Your task to perform on an android device: Open the phone app and click the voicemail tab. Image 0: 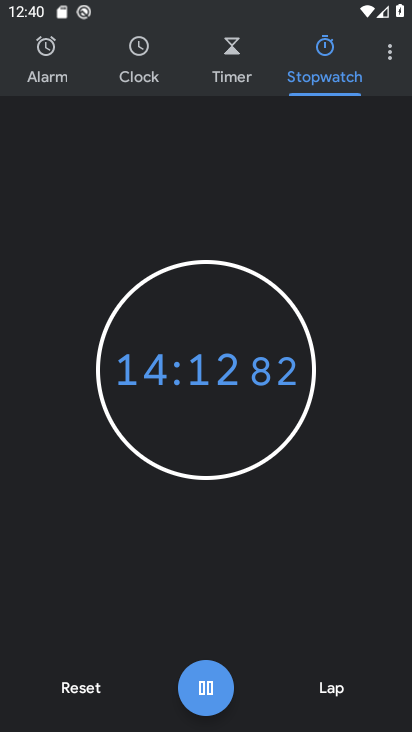
Step 0: press home button
Your task to perform on an android device: Open the phone app and click the voicemail tab. Image 1: 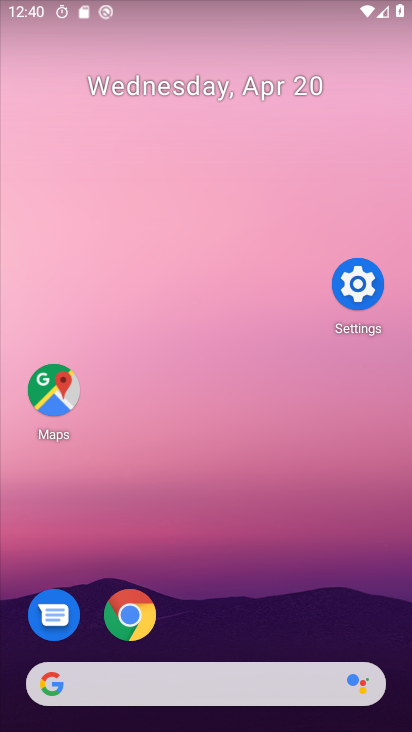
Step 1: drag from (212, 631) to (217, 159)
Your task to perform on an android device: Open the phone app and click the voicemail tab. Image 2: 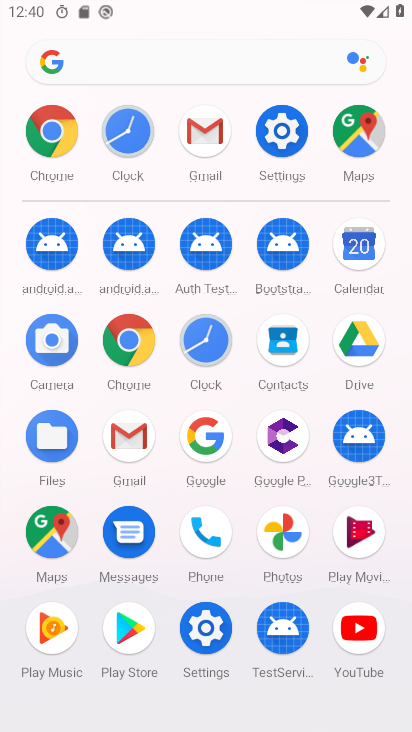
Step 2: click (208, 517)
Your task to perform on an android device: Open the phone app and click the voicemail tab. Image 3: 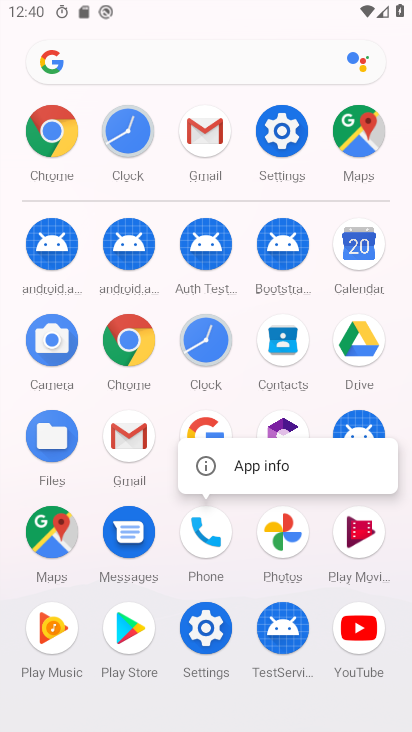
Step 3: click (247, 464)
Your task to perform on an android device: Open the phone app and click the voicemail tab. Image 4: 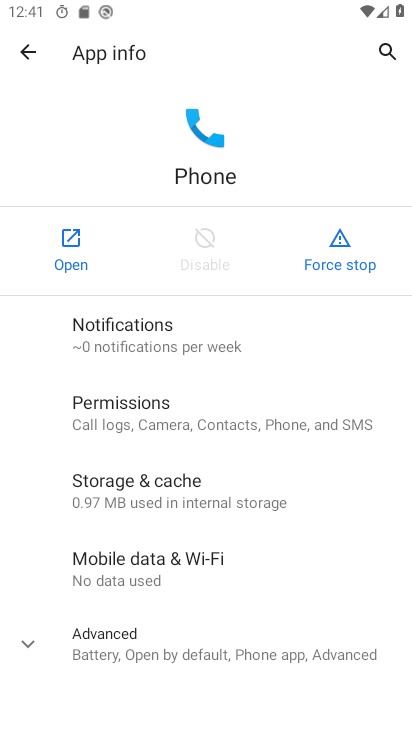
Step 4: click (55, 248)
Your task to perform on an android device: Open the phone app and click the voicemail tab. Image 5: 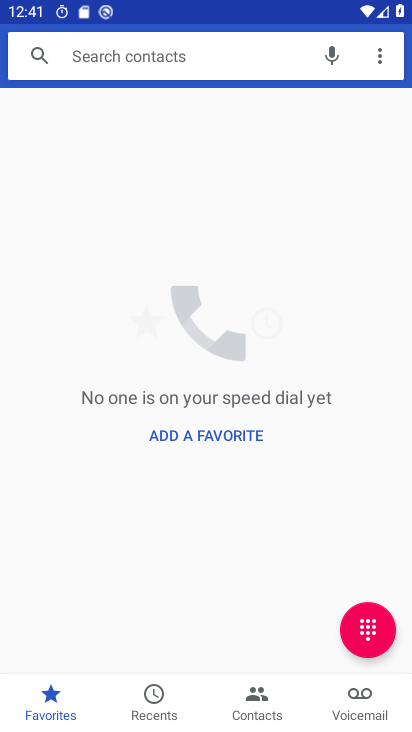
Step 5: click (359, 709)
Your task to perform on an android device: Open the phone app and click the voicemail tab. Image 6: 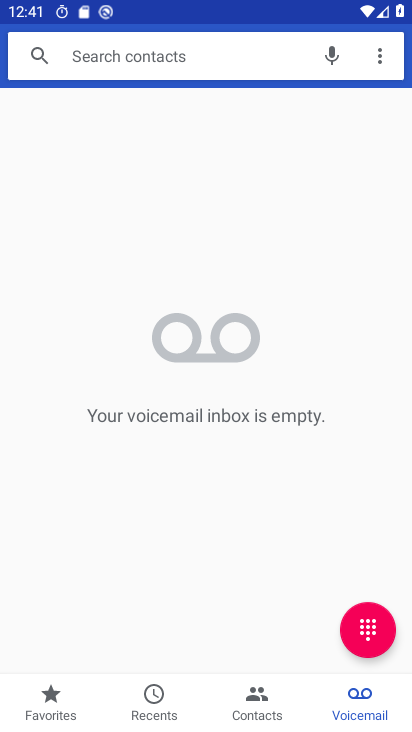
Step 6: task complete